Your task to perform on an android device: What's on my calendar today? Image 0: 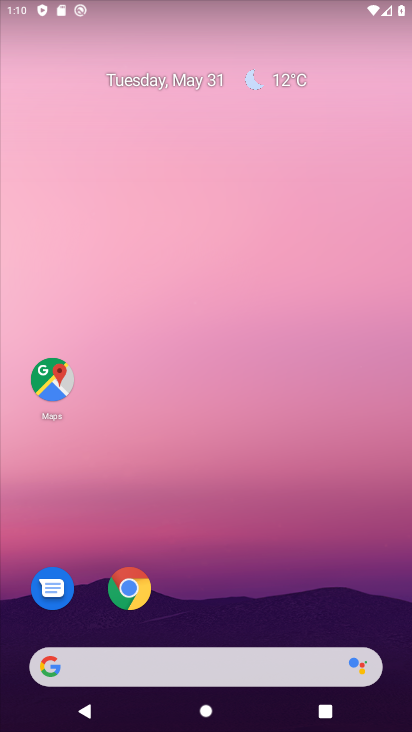
Step 0: drag from (392, 690) to (340, 190)
Your task to perform on an android device: What's on my calendar today? Image 1: 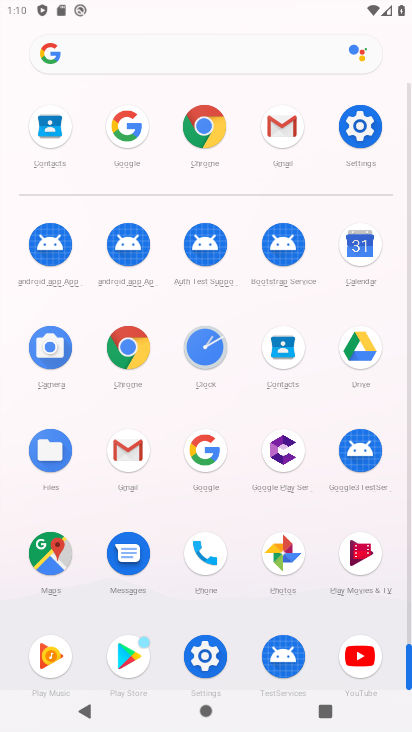
Step 1: click (367, 241)
Your task to perform on an android device: What's on my calendar today? Image 2: 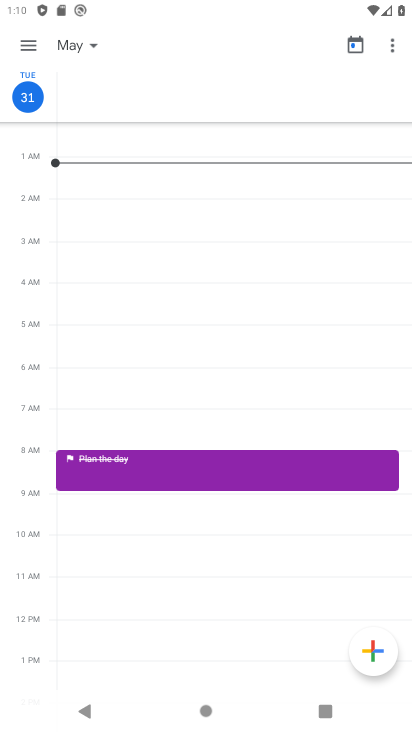
Step 2: click (26, 46)
Your task to perform on an android device: What's on my calendar today? Image 3: 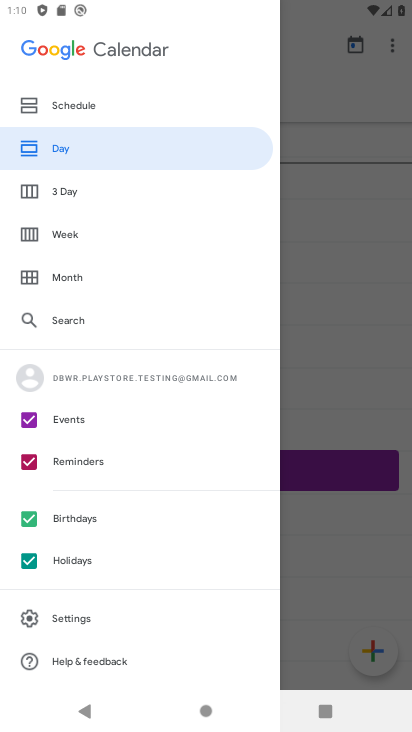
Step 3: click (77, 145)
Your task to perform on an android device: What's on my calendar today? Image 4: 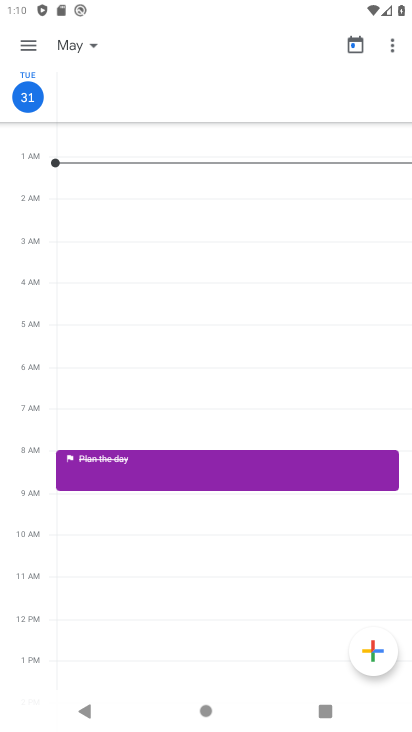
Step 4: click (31, 39)
Your task to perform on an android device: What's on my calendar today? Image 5: 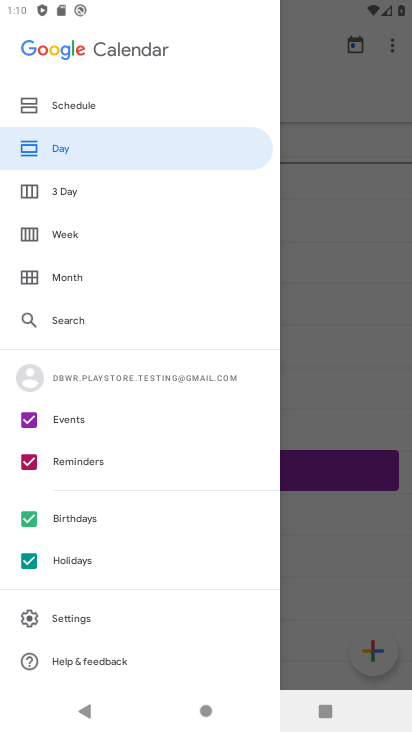
Step 5: click (84, 100)
Your task to perform on an android device: What's on my calendar today? Image 6: 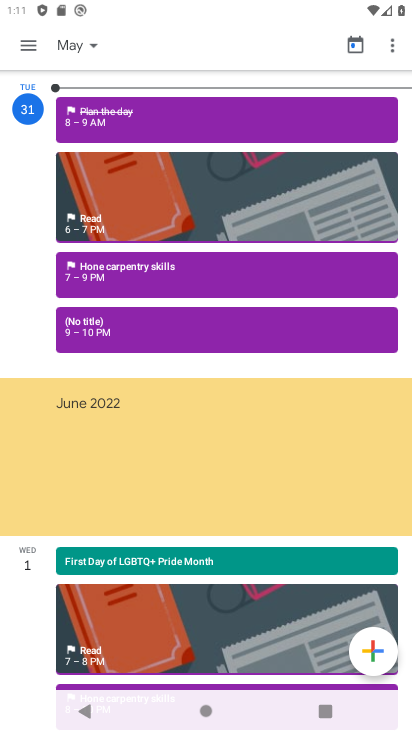
Step 6: task complete